Your task to perform on an android device: move an email to a new category in the gmail app Image 0: 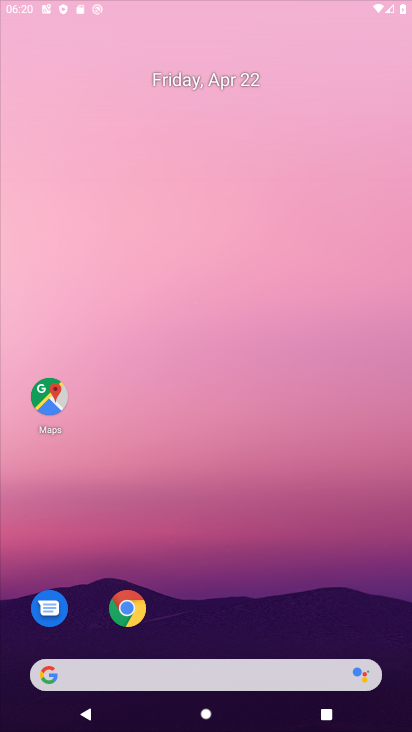
Step 0: click (234, 99)
Your task to perform on an android device: move an email to a new category in the gmail app Image 1: 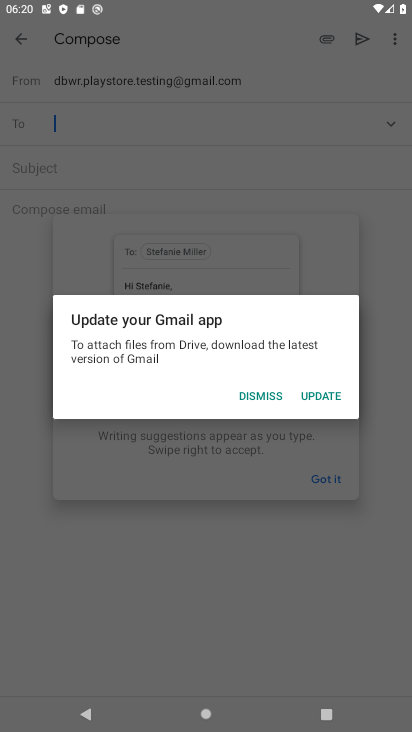
Step 1: press home button
Your task to perform on an android device: move an email to a new category in the gmail app Image 2: 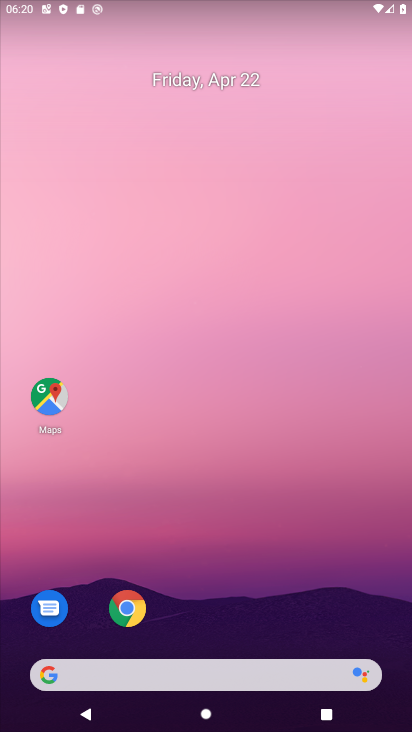
Step 2: drag from (246, 625) to (185, 187)
Your task to perform on an android device: move an email to a new category in the gmail app Image 3: 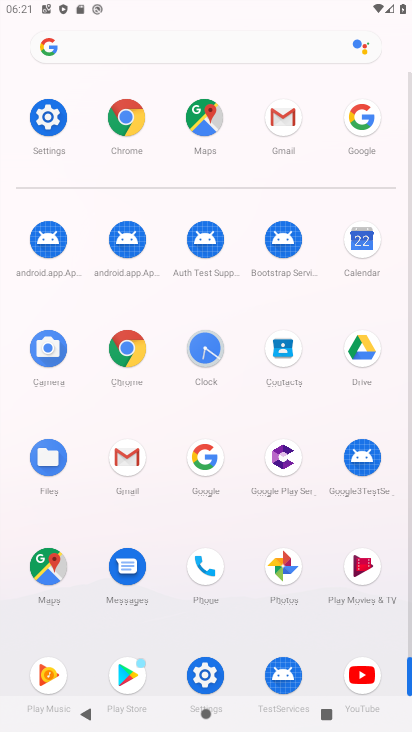
Step 3: click (274, 122)
Your task to perform on an android device: move an email to a new category in the gmail app Image 4: 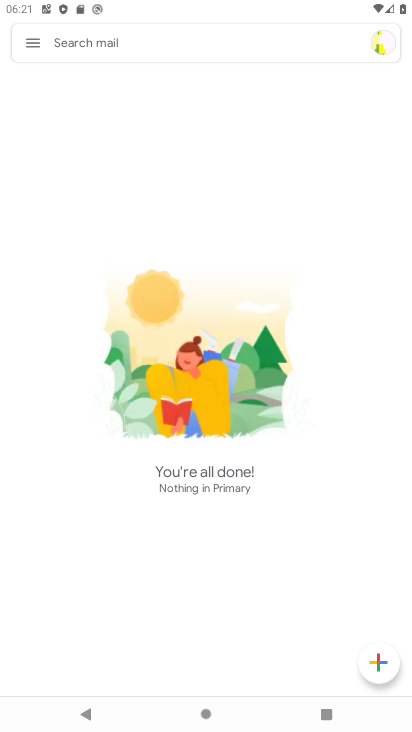
Step 4: click (34, 43)
Your task to perform on an android device: move an email to a new category in the gmail app Image 5: 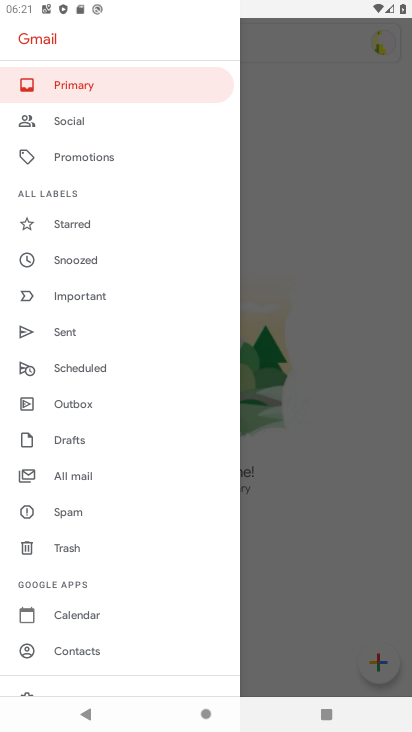
Step 5: click (70, 473)
Your task to perform on an android device: move an email to a new category in the gmail app Image 6: 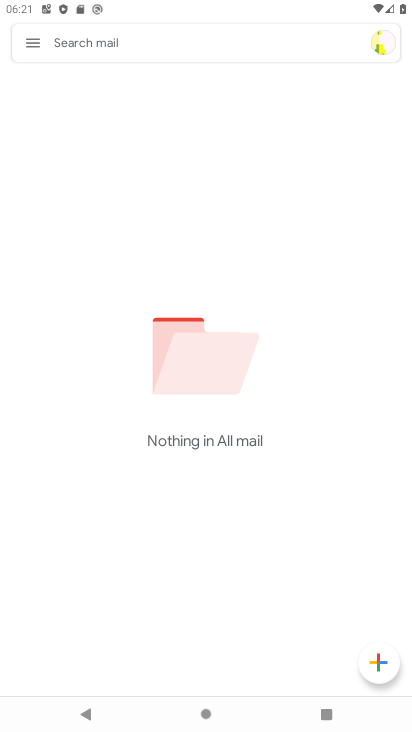
Step 6: task complete